Your task to perform on an android device: Open Chrome and go to the settings page Image 0: 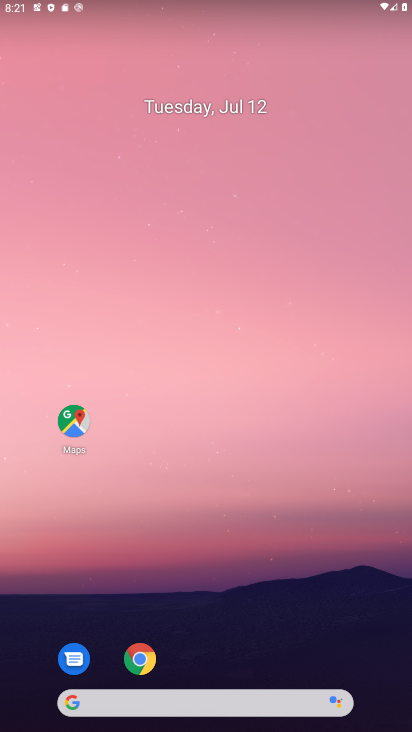
Step 0: click (140, 655)
Your task to perform on an android device: Open Chrome and go to the settings page Image 1: 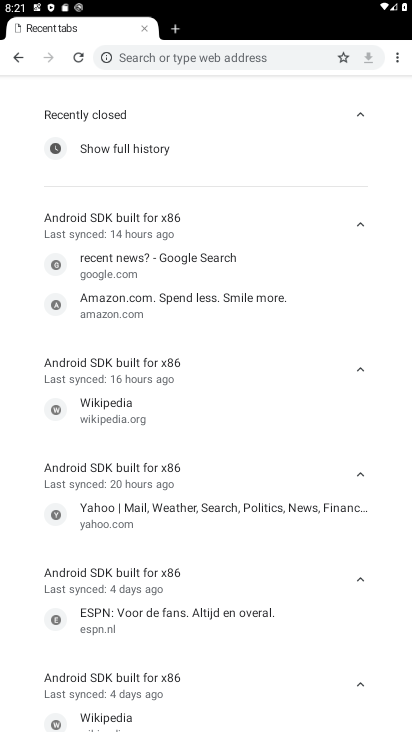
Step 1: click (400, 56)
Your task to perform on an android device: Open Chrome and go to the settings page Image 2: 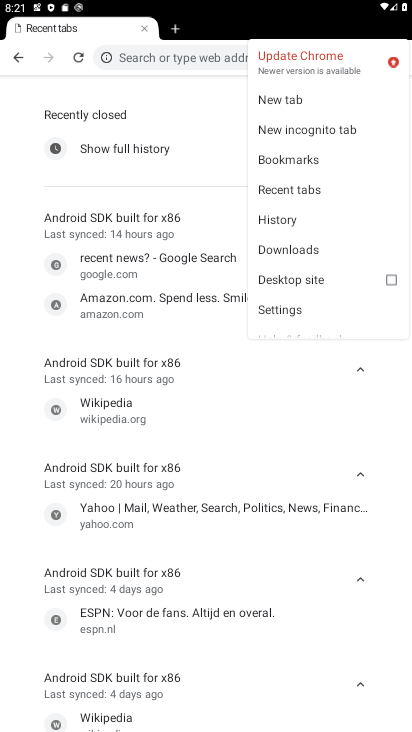
Step 2: click (290, 310)
Your task to perform on an android device: Open Chrome and go to the settings page Image 3: 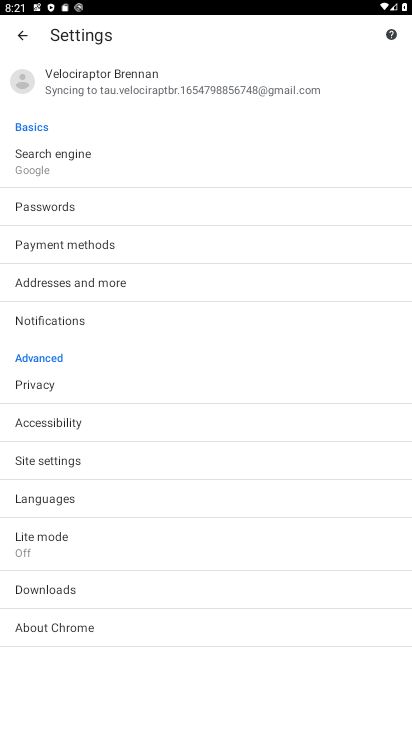
Step 3: task complete